Your task to perform on an android device: open chrome and create a bookmark for the current page Image 0: 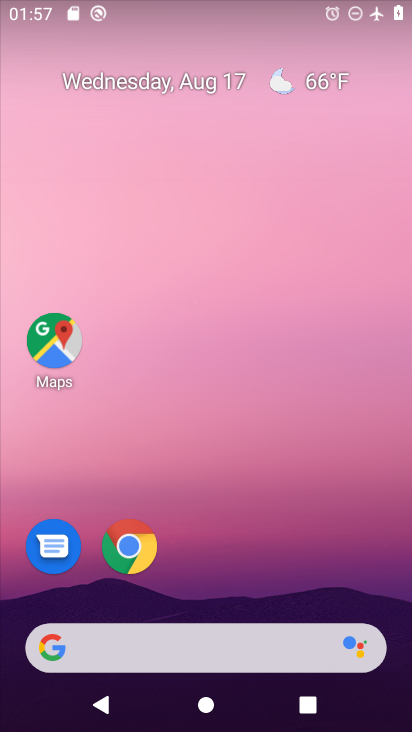
Step 0: click (129, 545)
Your task to perform on an android device: open chrome and create a bookmark for the current page Image 1: 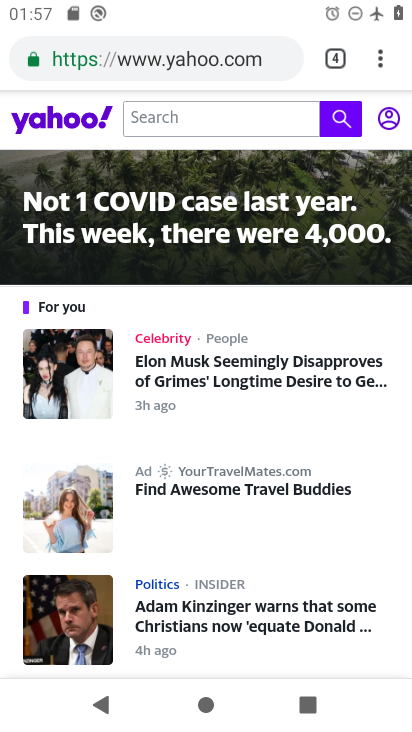
Step 1: click (395, 59)
Your task to perform on an android device: open chrome and create a bookmark for the current page Image 2: 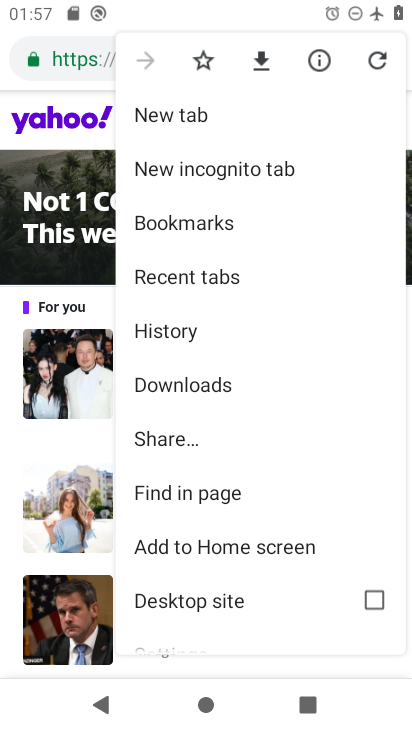
Step 2: click (203, 57)
Your task to perform on an android device: open chrome and create a bookmark for the current page Image 3: 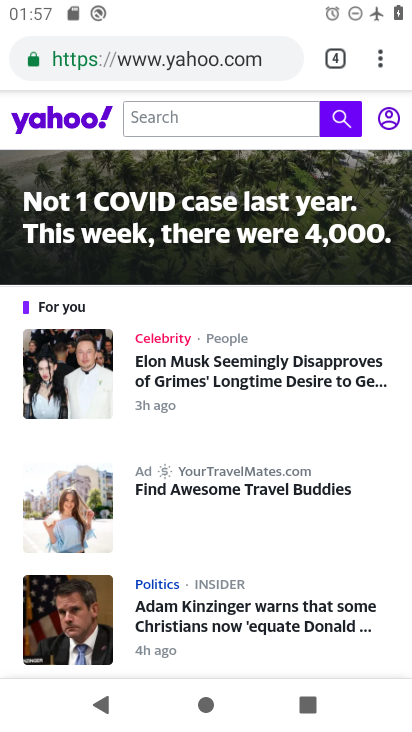
Step 3: task complete